Your task to perform on an android device: Open Youtube and go to the subscriptions tab Image 0: 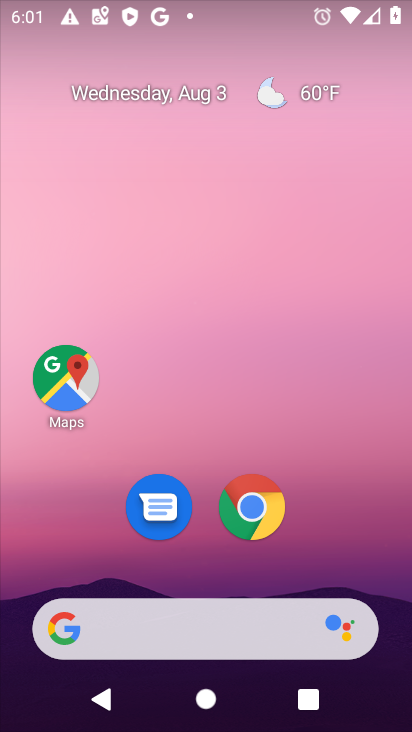
Step 0: drag from (392, 571) to (352, 124)
Your task to perform on an android device: Open Youtube and go to the subscriptions tab Image 1: 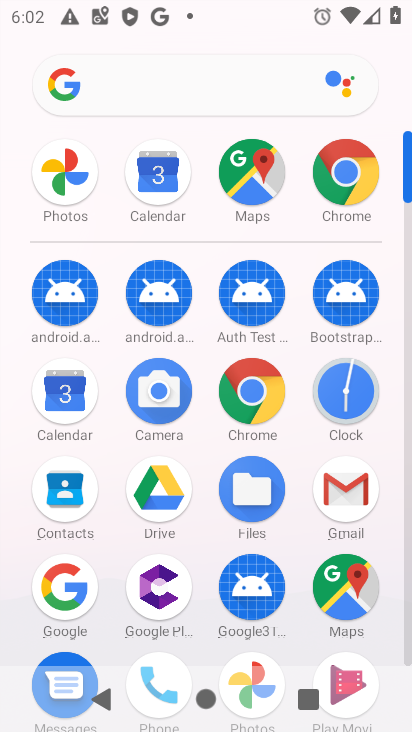
Step 1: drag from (307, 512) to (315, 122)
Your task to perform on an android device: Open Youtube and go to the subscriptions tab Image 2: 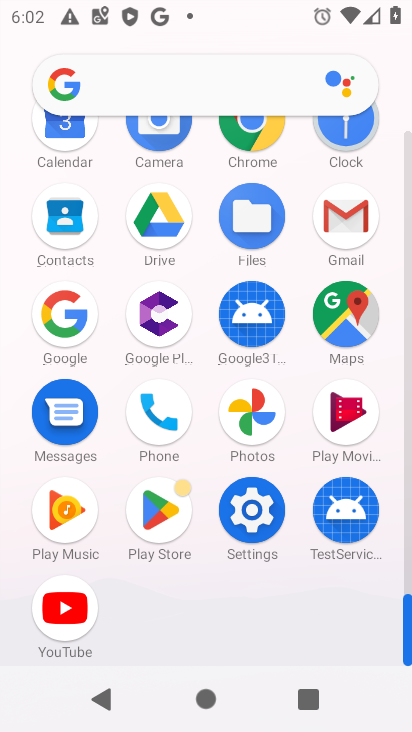
Step 2: click (78, 608)
Your task to perform on an android device: Open Youtube and go to the subscriptions tab Image 3: 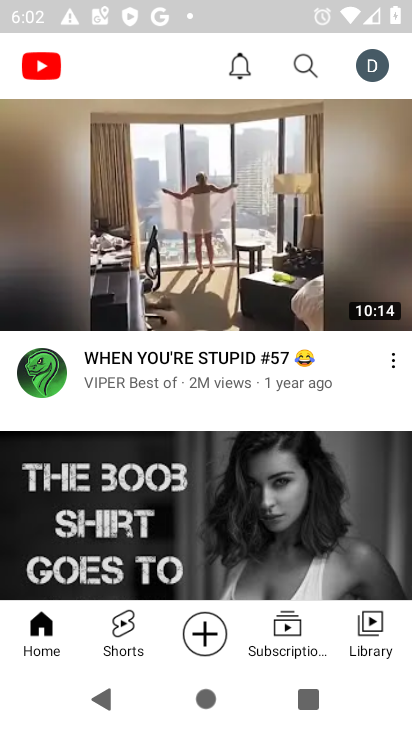
Step 3: click (298, 627)
Your task to perform on an android device: Open Youtube and go to the subscriptions tab Image 4: 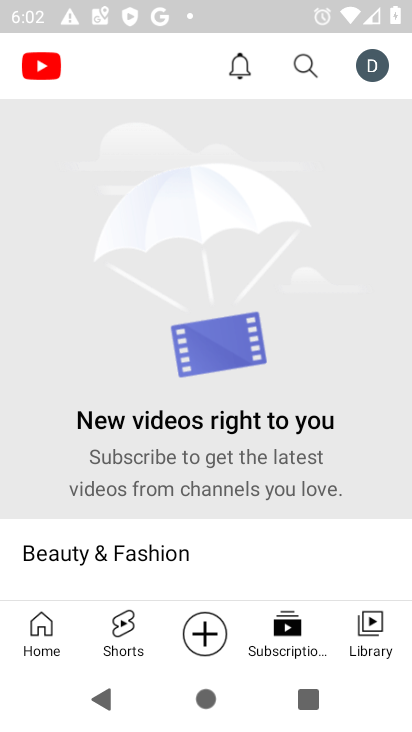
Step 4: task complete